Your task to perform on an android device: Do I have any events tomorrow? Image 0: 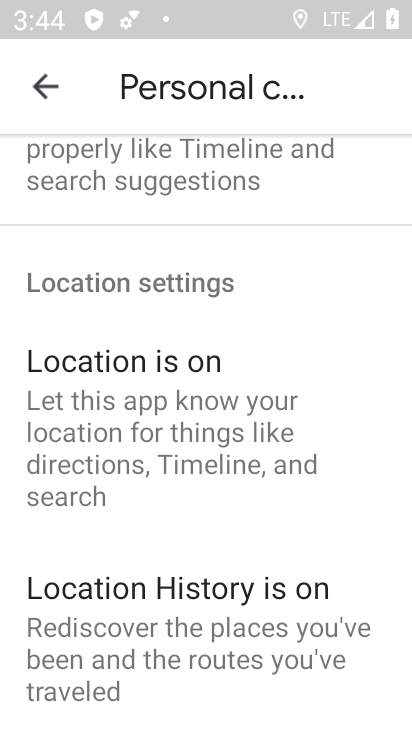
Step 0: press home button
Your task to perform on an android device: Do I have any events tomorrow? Image 1: 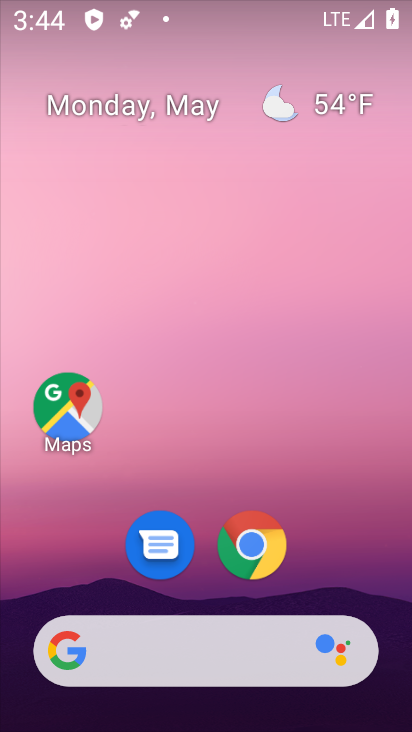
Step 1: drag from (399, 648) to (268, 220)
Your task to perform on an android device: Do I have any events tomorrow? Image 2: 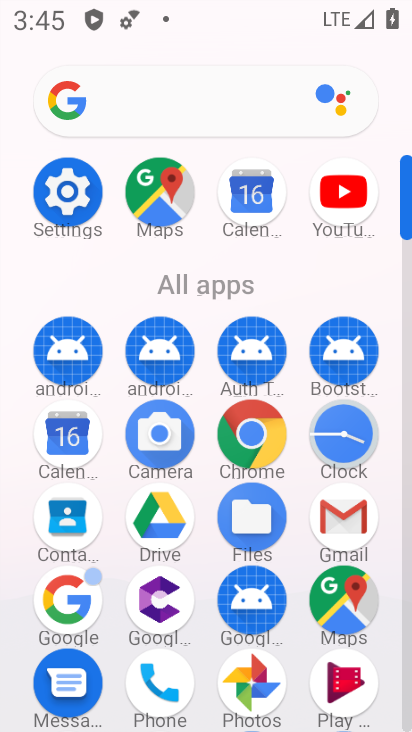
Step 2: click (65, 433)
Your task to perform on an android device: Do I have any events tomorrow? Image 3: 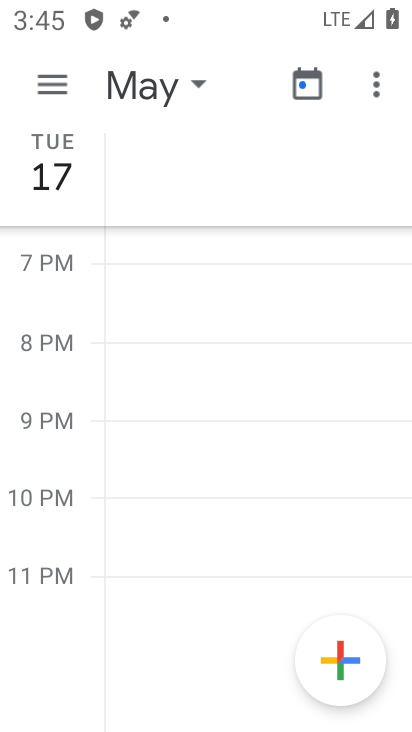
Step 3: task complete